Your task to perform on an android device: turn on location history Image 0: 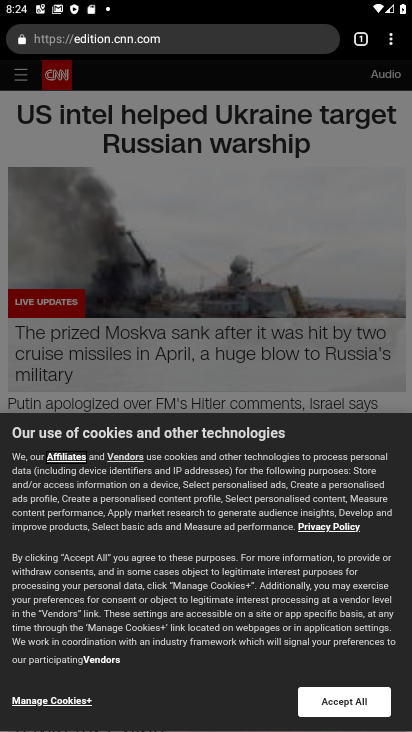
Step 0: press home button
Your task to perform on an android device: turn on location history Image 1: 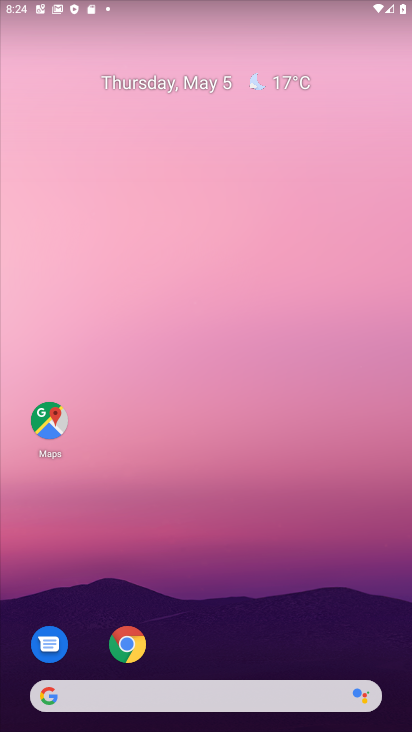
Step 1: click (43, 410)
Your task to perform on an android device: turn on location history Image 2: 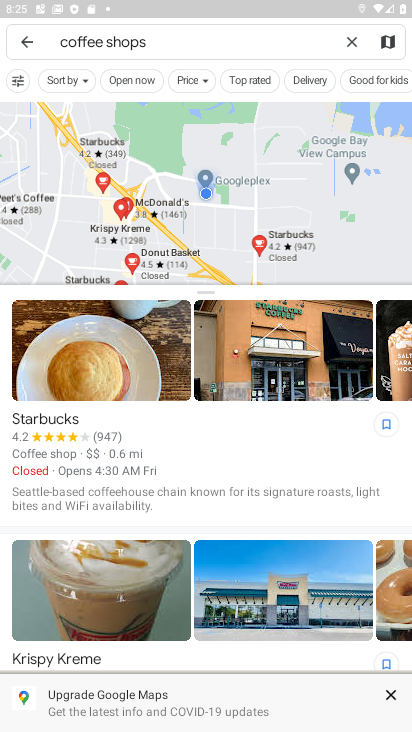
Step 2: click (23, 46)
Your task to perform on an android device: turn on location history Image 3: 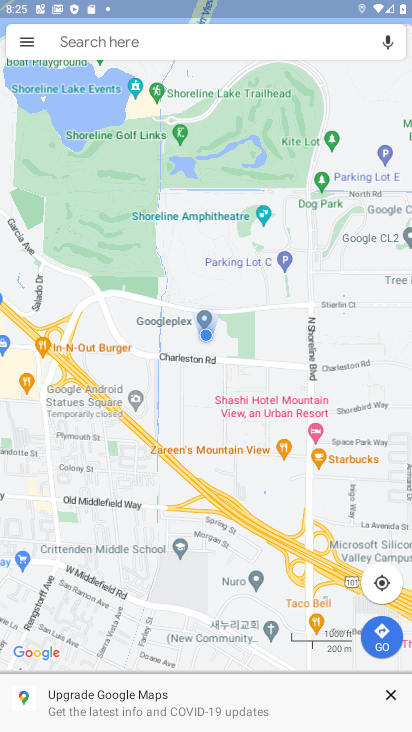
Step 3: click (23, 46)
Your task to perform on an android device: turn on location history Image 4: 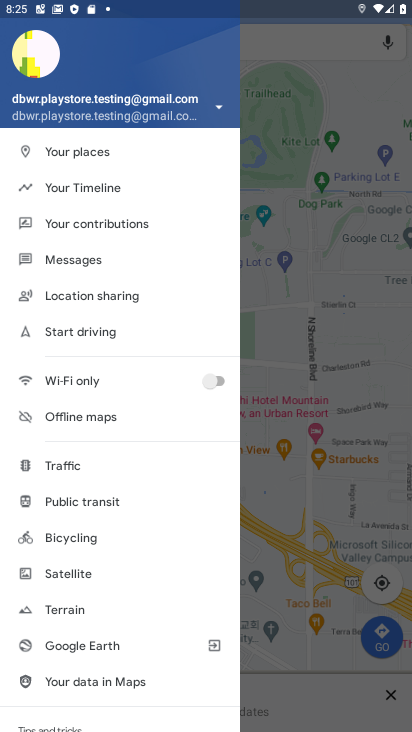
Step 4: click (147, 186)
Your task to perform on an android device: turn on location history Image 5: 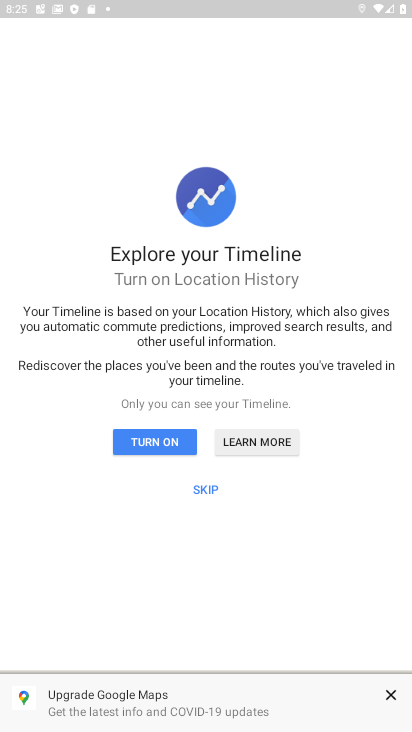
Step 5: click (205, 489)
Your task to perform on an android device: turn on location history Image 6: 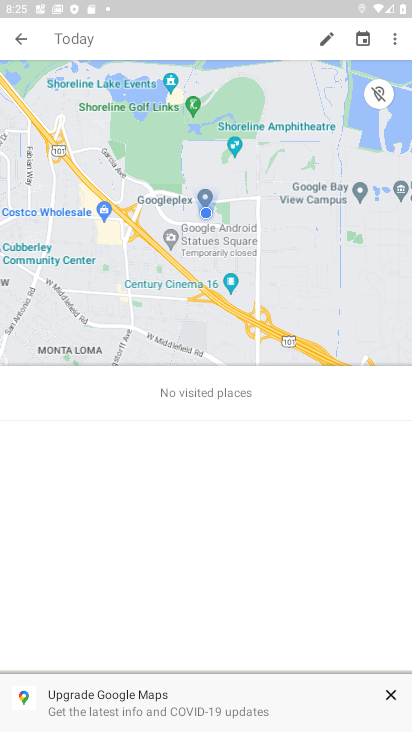
Step 6: click (394, 37)
Your task to perform on an android device: turn on location history Image 7: 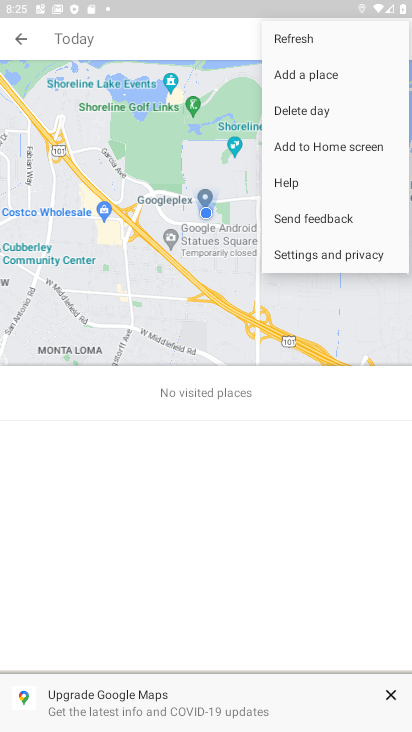
Step 7: click (338, 265)
Your task to perform on an android device: turn on location history Image 8: 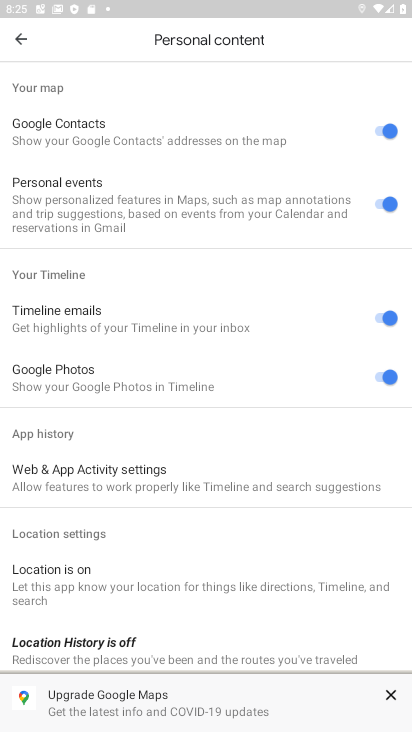
Step 8: drag from (262, 634) to (246, 444)
Your task to perform on an android device: turn on location history Image 9: 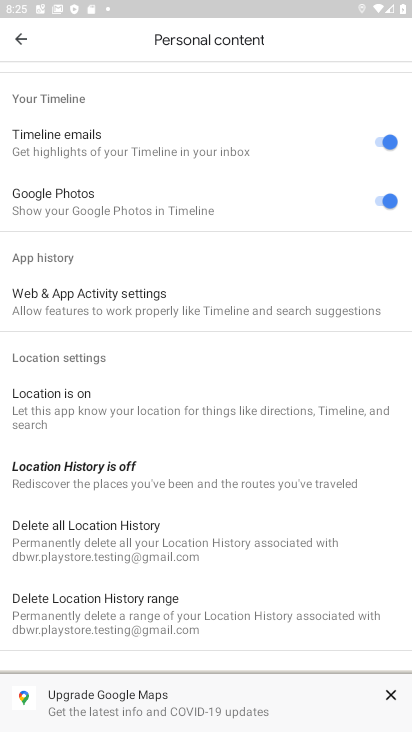
Step 9: click (235, 491)
Your task to perform on an android device: turn on location history Image 10: 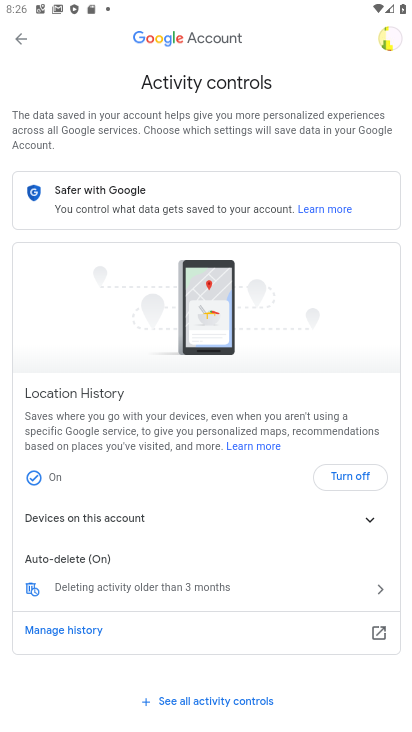
Step 10: task complete